Your task to perform on an android device: toggle pop-ups in chrome Image 0: 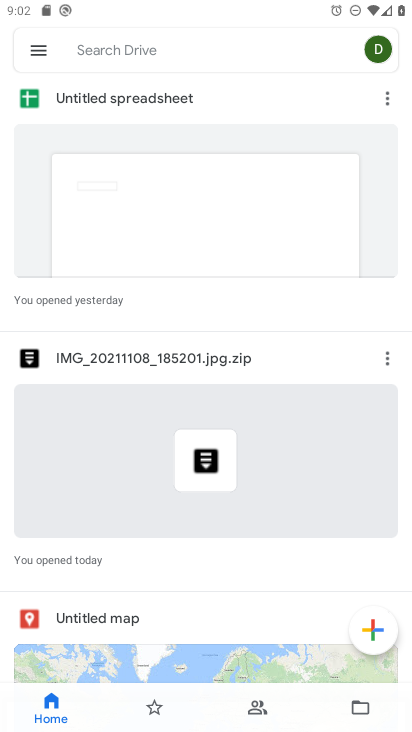
Step 0: press home button
Your task to perform on an android device: toggle pop-ups in chrome Image 1: 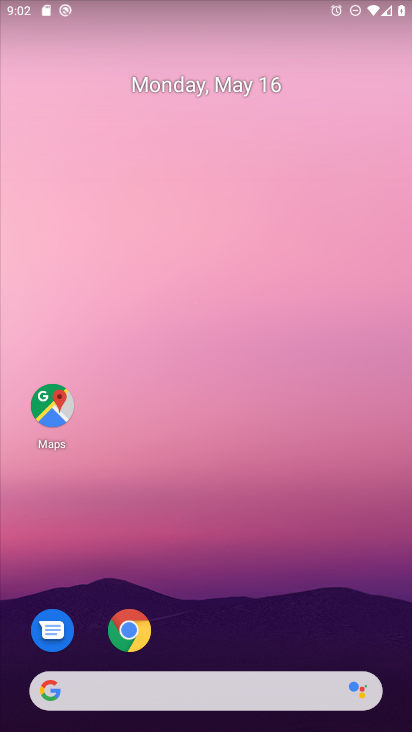
Step 1: click (133, 632)
Your task to perform on an android device: toggle pop-ups in chrome Image 2: 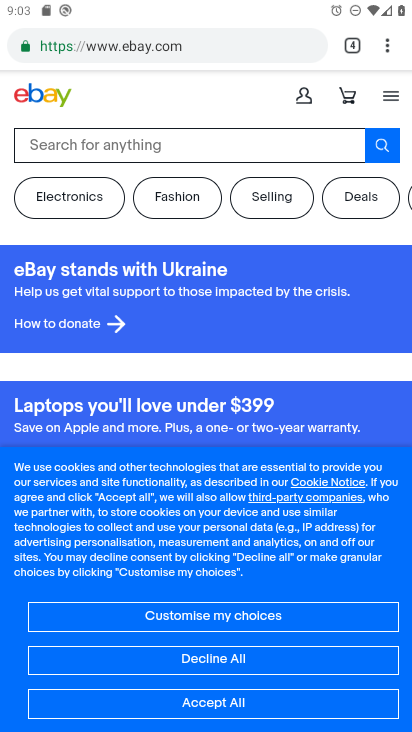
Step 2: click (388, 42)
Your task to perform on an android device: toggle pop-ups in chrome Image 3: 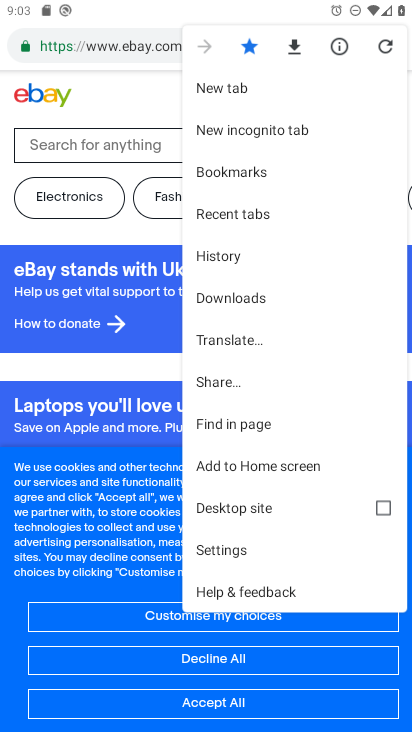
Step 3: click (243, 550)
Your task to perform on an android device: toggle pop-ups in chrome Image 4: 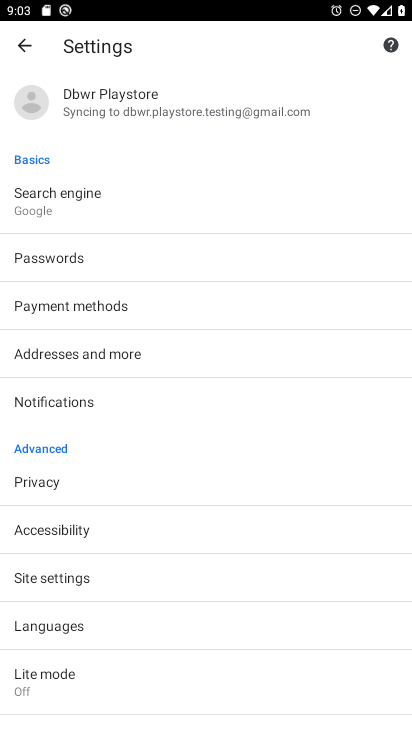
Step 4: click (54, 577)
Your task to perform on an android device: toggle pop-ups in chrome Image 5: 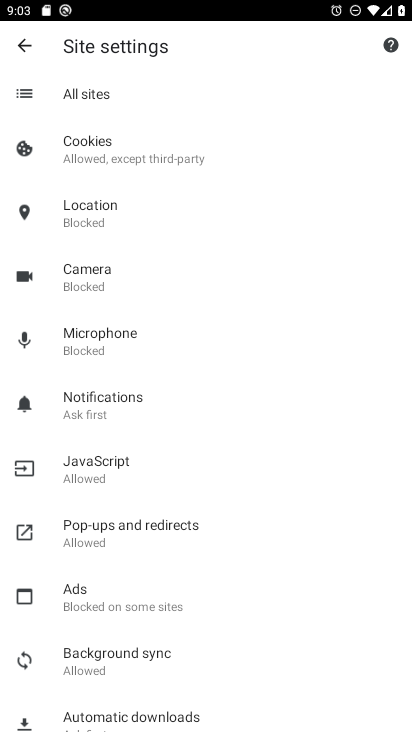
Step 5: click (130, 550)
Your task to perform on an android device: toggle pop-ups in chrome Image 6: 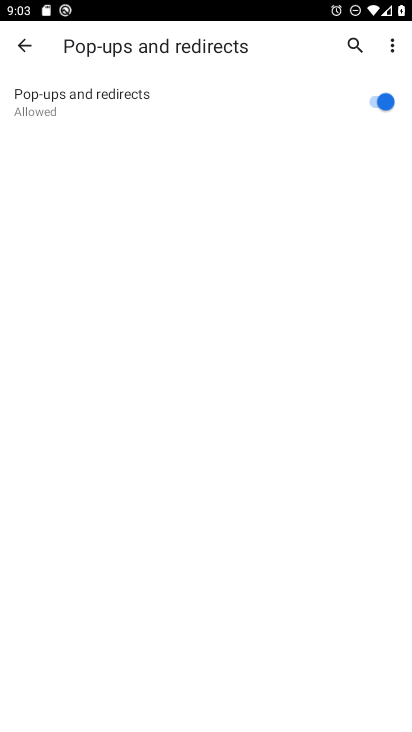
Step 6: click (394, 93)
Your task to perform on an android device: toggle pop-ups in chrome Image 7: 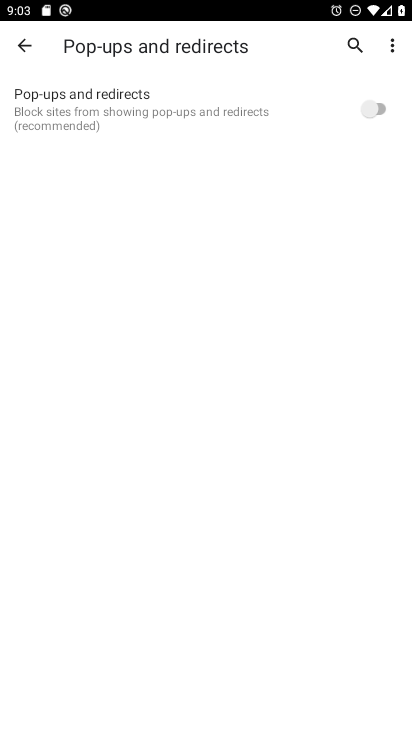
Step 7: task complete